Your task to perform on an android device: Show me recent news Image 0: 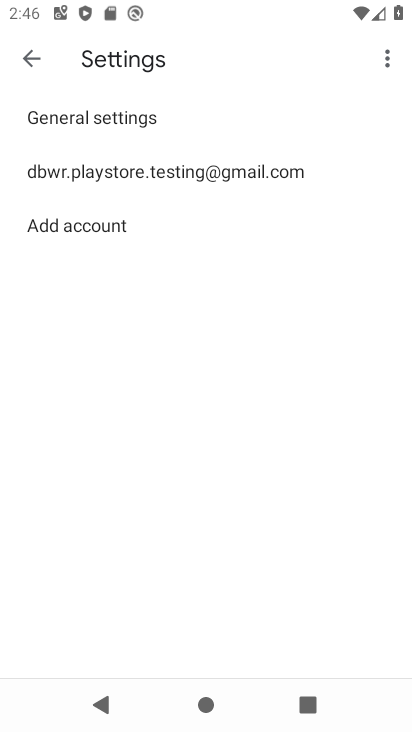
Step 0: press back button
Your task to perform on an android device: Show me recent news Image 1: 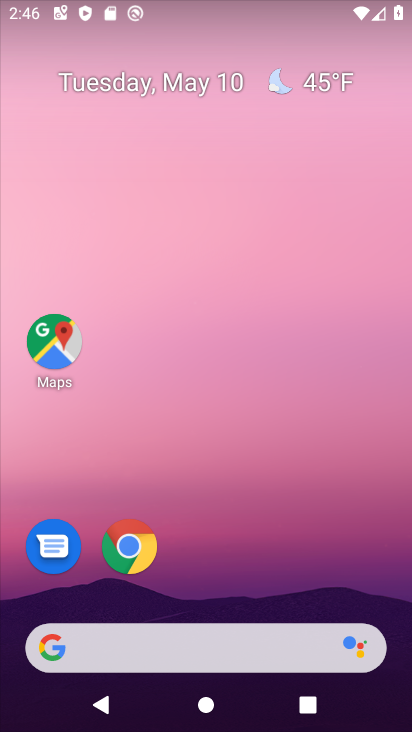
Step 1: click (129, 546)
Your task to perform on an android device: Show me recent news Image 2: 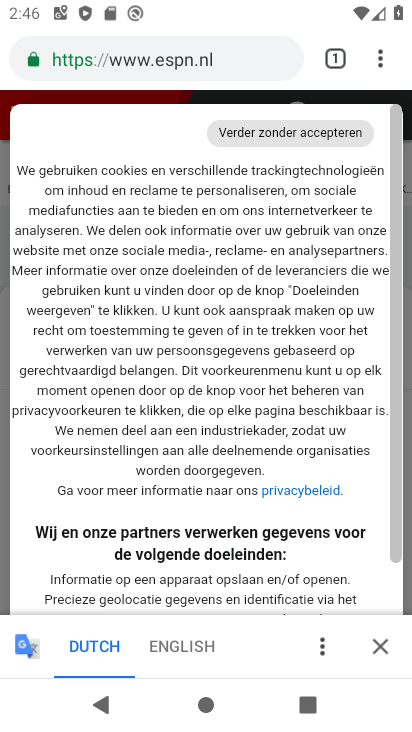
Step 2: click (159, 64)
Your task to perform on an android device: Show me recent news Image 3: 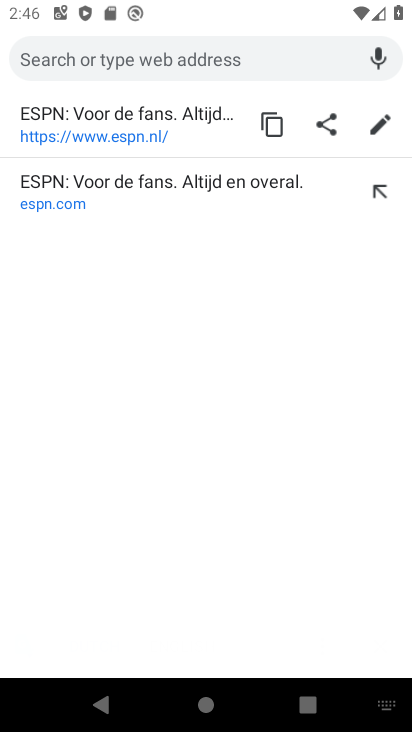
Step 3: type "Show me recent news"
Your task to perform on an android device: Show me recent news Image 4: 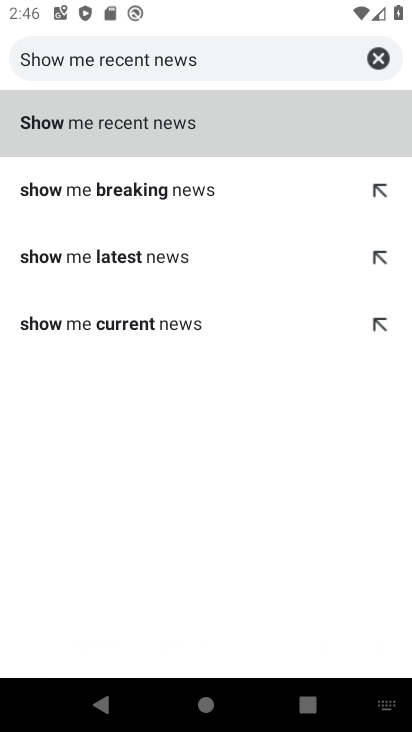
Step 4: click (232, 133)
Your task to perform on an android device: Show me recent news Image 5: 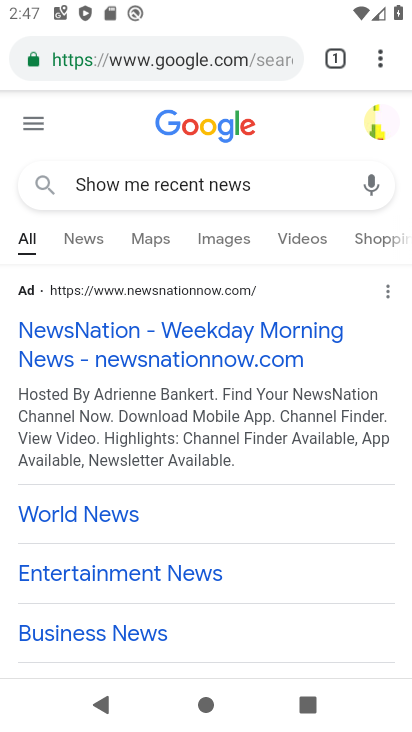
Step 5: drag from (281, 558) to (271, 333)
Your task to perform on an android device: Show me recent news Image 6: 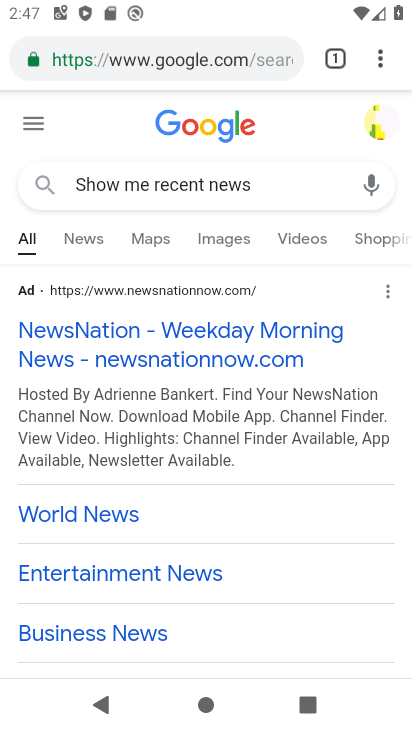
Step 6: click (67, 233)
Your task to perform on an android device: Show me recent news Image 7: 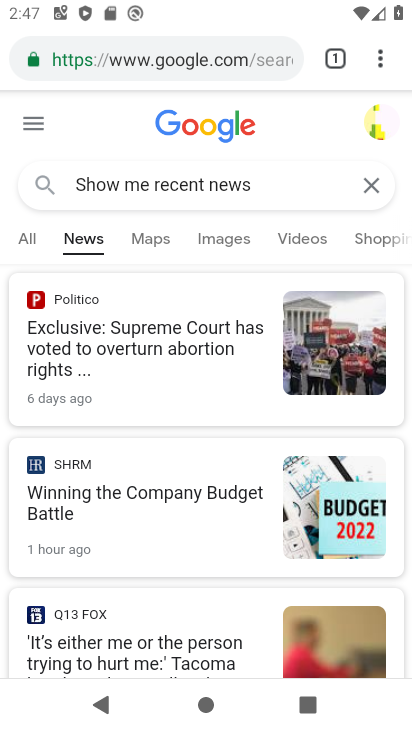
Step 7: task complete